Your task to perform on an android device: Check the weather Image 0: 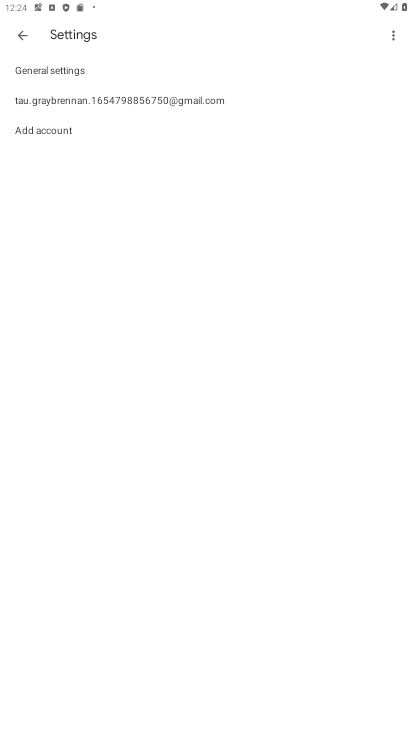
Step 0: press home button
Your task to perform on an android device: Check the weather Image 1: 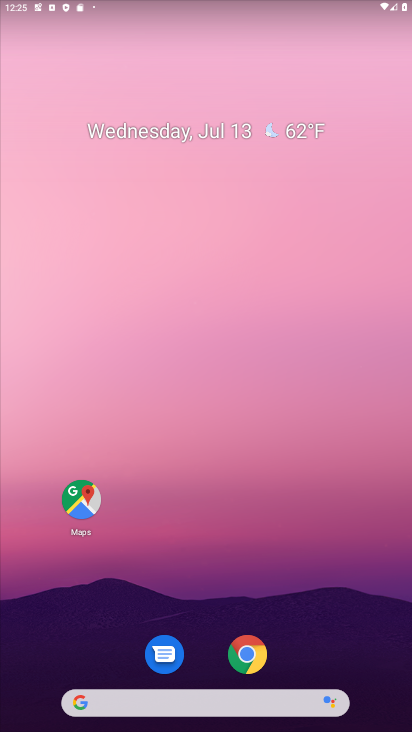
Step 1: drag from (264, 644) to (362, 1)
Your task to perform on an android device: Check the weather Image 2: 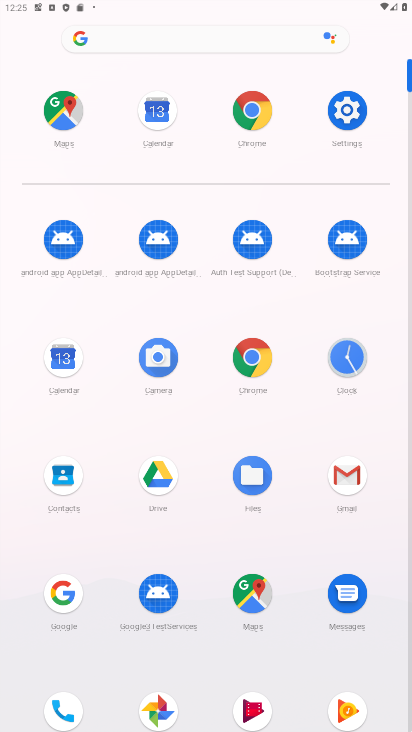
Step 2: click (246, 358)
Your task to perform on an android device: Check the weather Image 3: 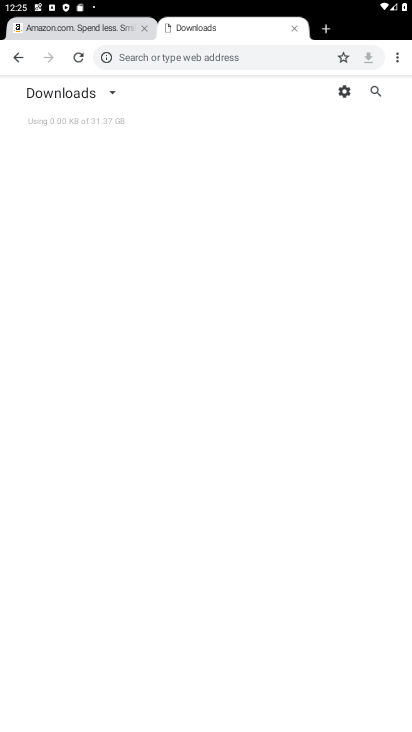
Step 3: click (200, 56)
Your task to perform on an android device: Check the weather Image 4: 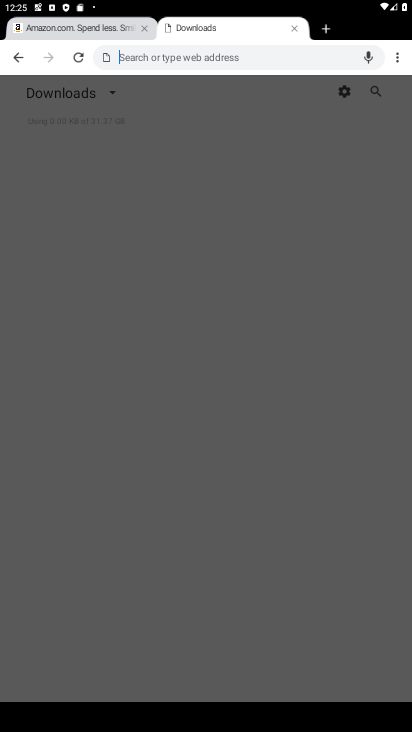
Step 4: type "check the weather"
Your task to perform on an android device: Check the weather Image 5: 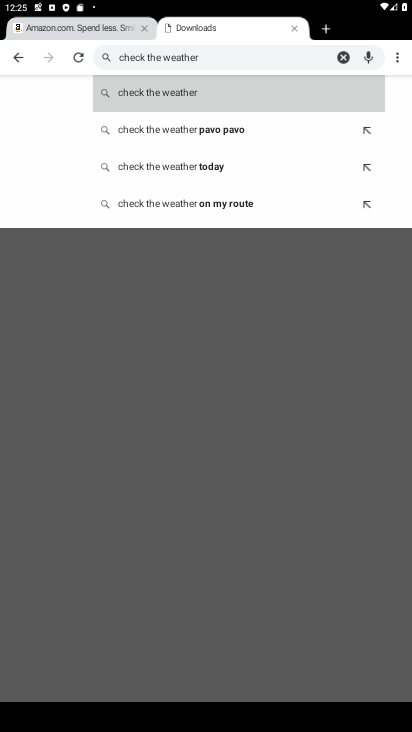
Step 5: click (198, 93)
Your task to perform on an android device: Check the weather Image 6: 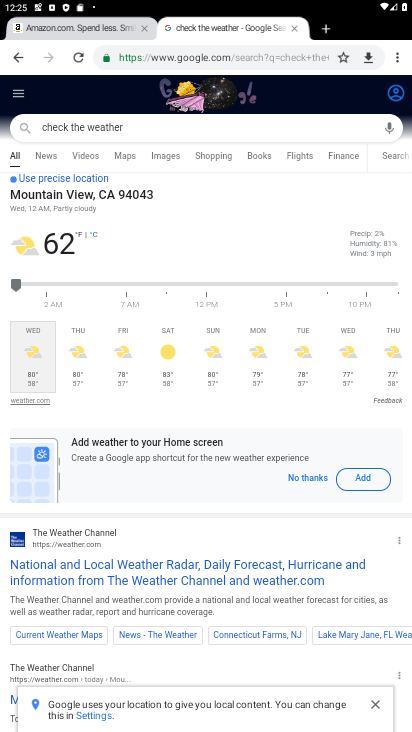
Step 6: task complete